Your task to perform on an android device: Open Yahoo.com Image 0: 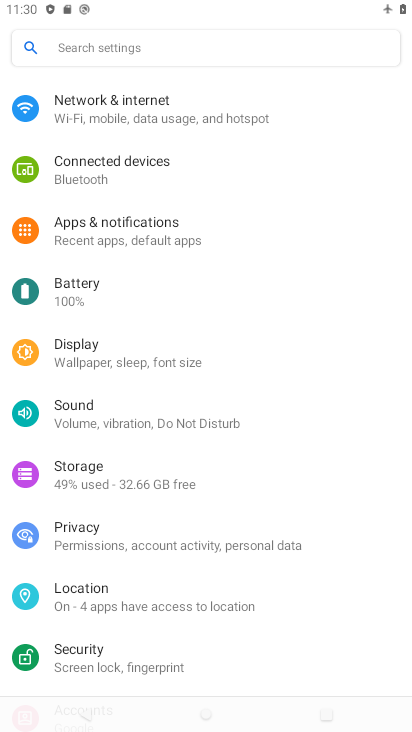
Step 0: drag from (176, 615) to (341, 162)
Your task to perform on an android device: Open Yahoo.com Image 1: 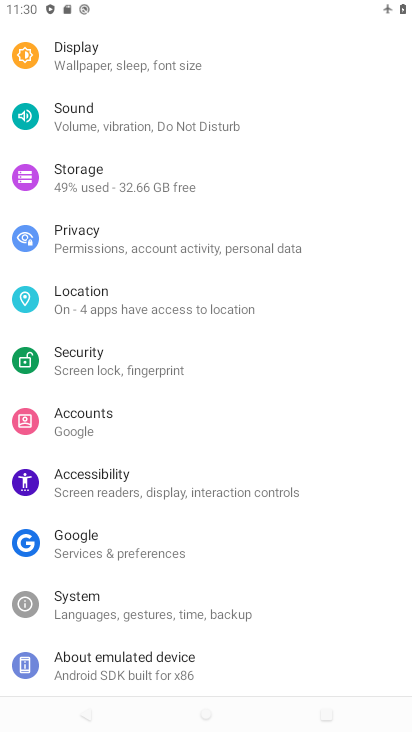
Step 1: drag from (184, 617) to (232, 371)
Your task to perform on an android device: Open Yahoo.com Image 2: 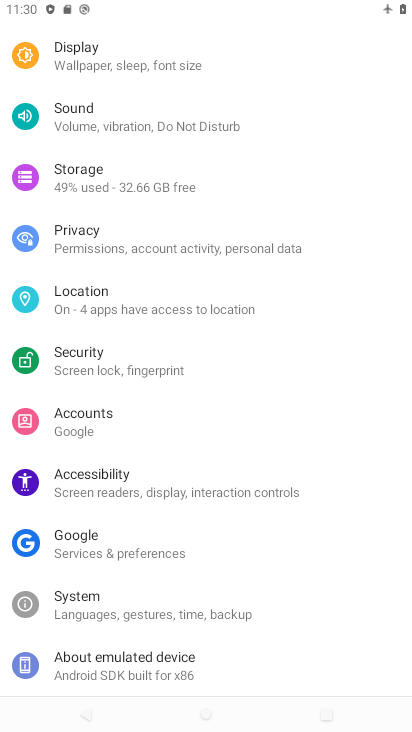
Step 2: drag from (210, 197) to (253, 508)
Your task to perform on an android device: Open Yahoo.com Image 3: 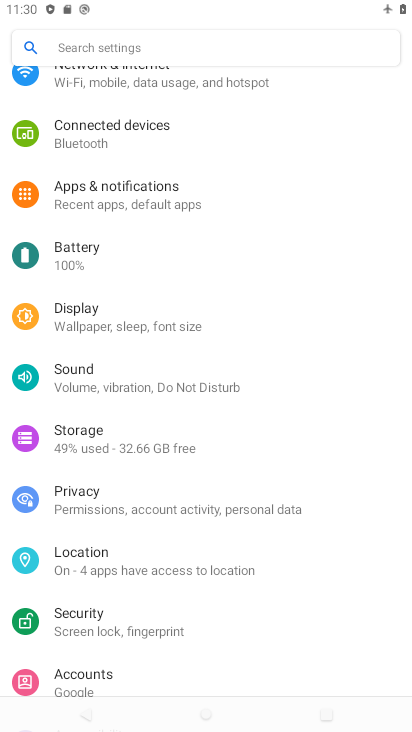
Step 3: press home button
Your task to perform on an android device: Open Yahoo.com Image 4: 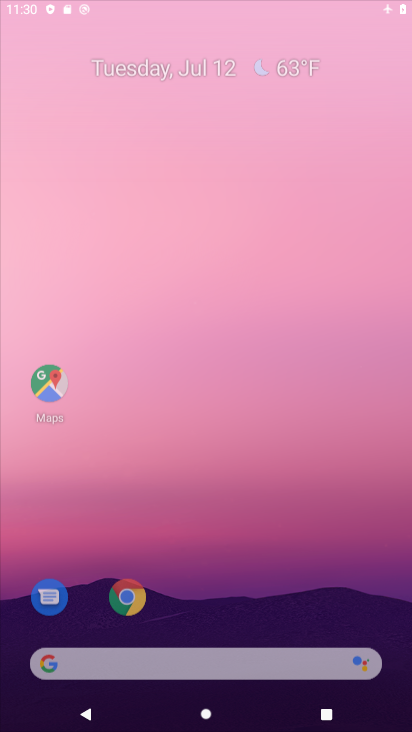
Step 4: drag from (225, 542) to (304, 68)
Your task to perform on an android device: Open Yahoo.com Image 5: 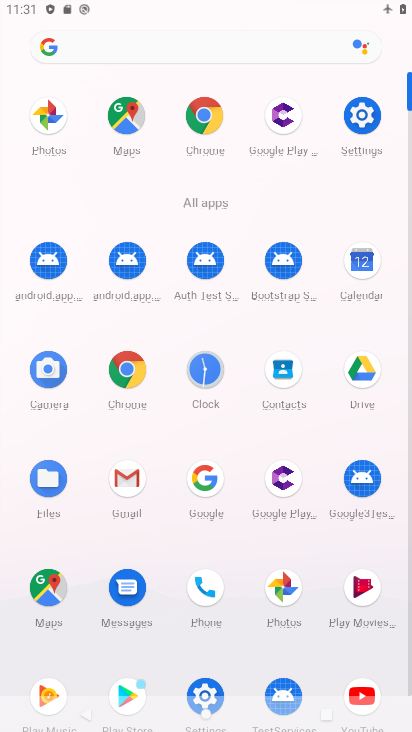
Step 5: click (198, 45)
Your task to perform on an android device: Open Yahoo.com Image 6: 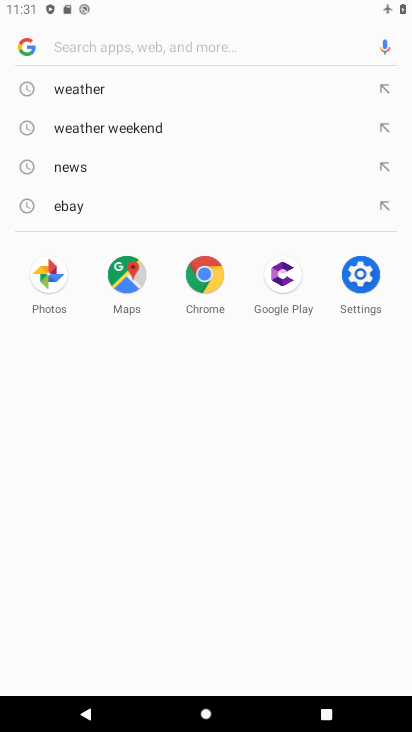
Step 6: click (169, 36)
Your task to perform on an android device: Open Yahoo.com Image 7: 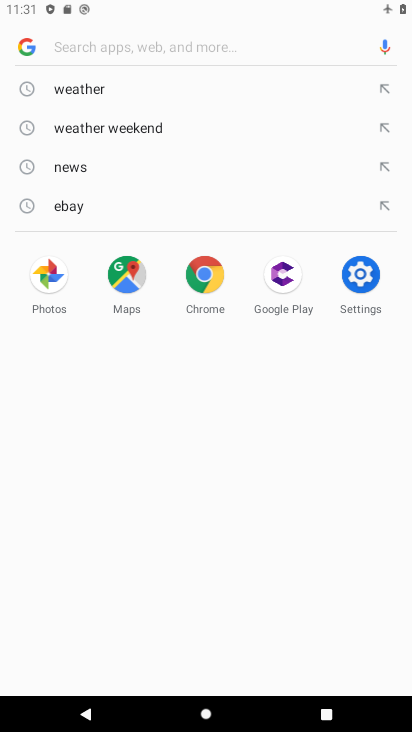
Step 7: type "Yahoo"
Your task to perform on an android device: Open Yahoo.com Image 8: 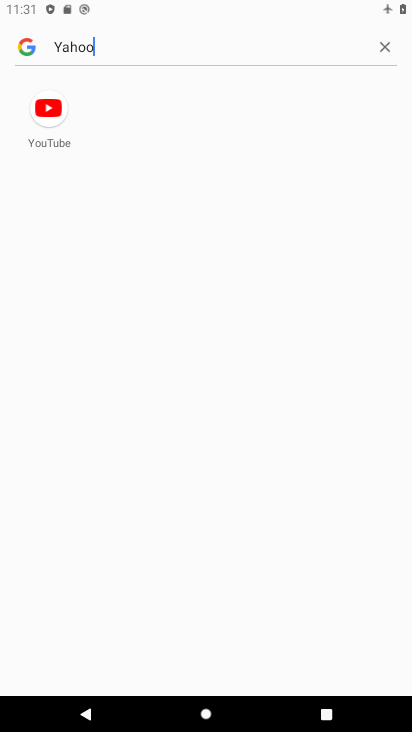
Step 8: type ""
Your task to perform on an android device: Open Yahoo.com Image 9: 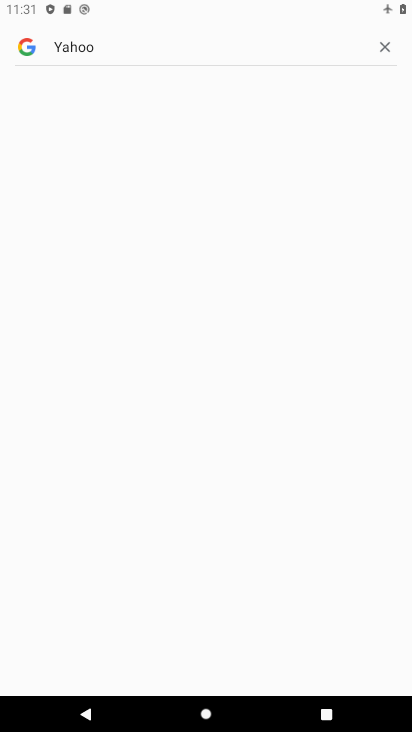
Step 9: click (214, 175)
Your task to perform on an android device: Open Yahoo.com Image 10: 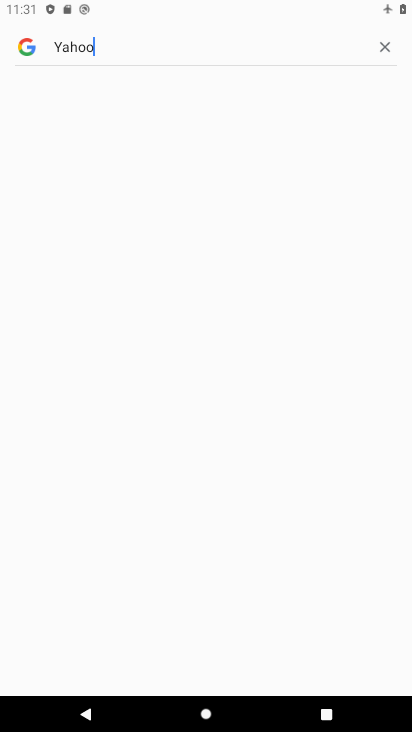
Step 10: click (273, 228)
Your task to perform on an android device: Open Yahoo.com Image 11: 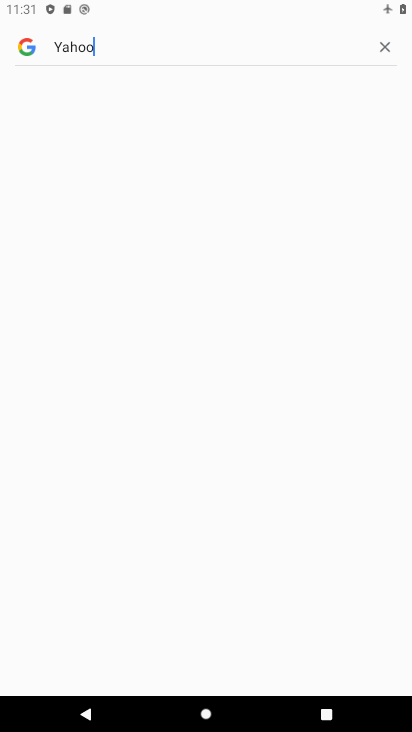
Step 11: task complete